Your task to perform on an android device: Go to network settings Image 0: 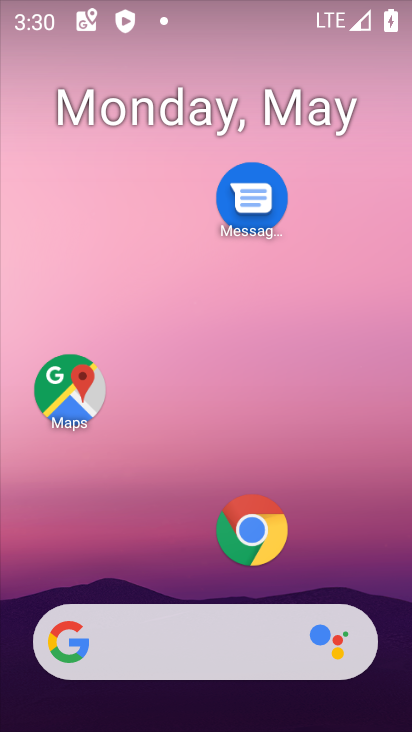
Step 0: drag from (126, 547) to (264, 10)
Your task to perform on an android device: Go to network settings Image 1: 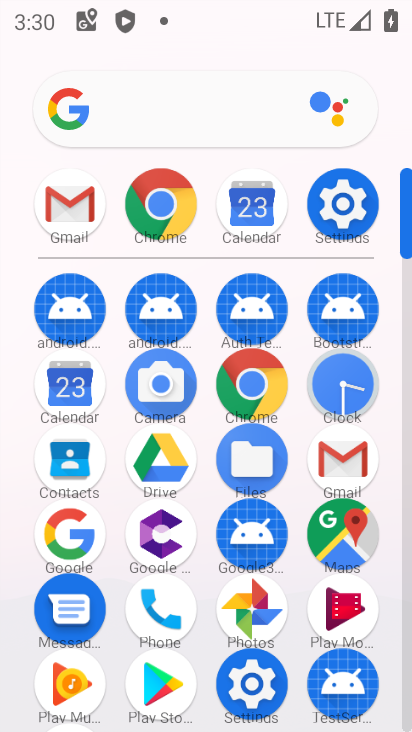
Step 1: click (340, 193)
Your task to perform on an android device: Go to network settings Image 2: 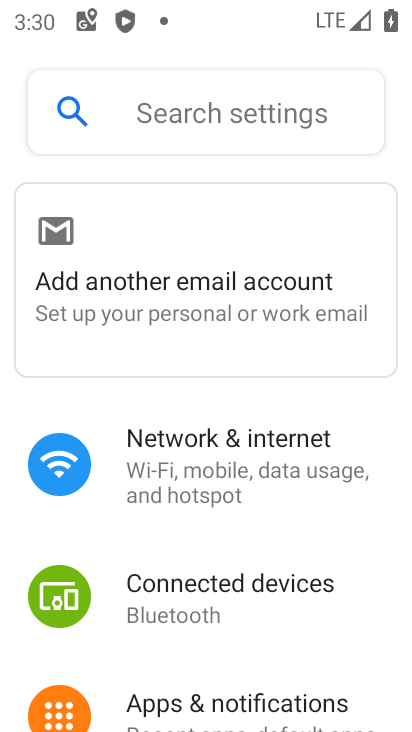
Step 2: click (214, 475)
Your task to perform on an android device: Go to network settings Image 3: 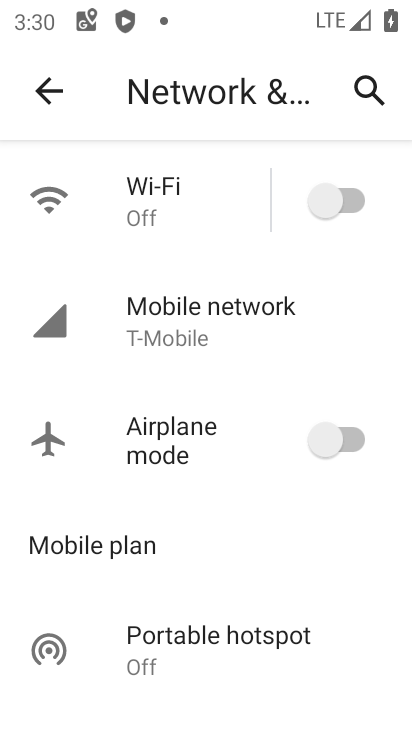
Step 3: task complete